Your task to perform on an android device: Play the last video I watched on Youtube Image 0: 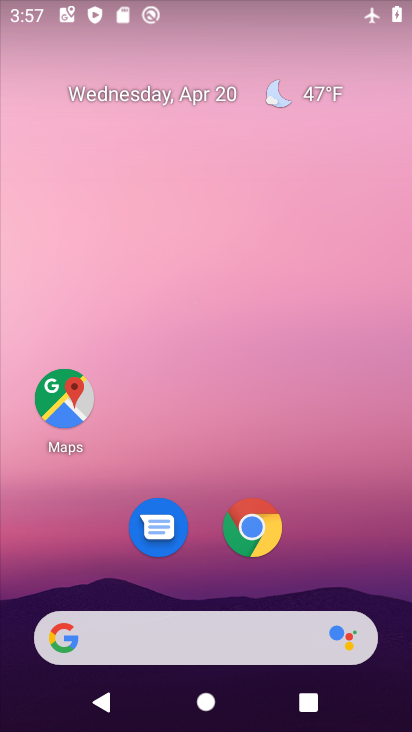
Step 0: drag from (305, 561) to (284, 58)
Your task to perform on an android device: Play the last video I watched on Youtube Image 1: 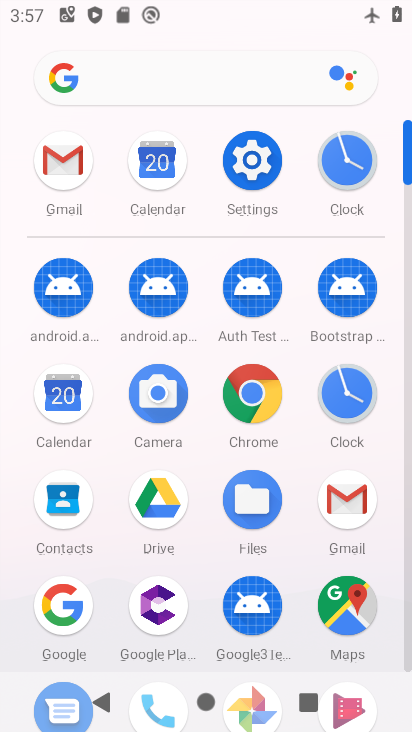
Step 1: drag from (331, 652) to (319, 126)
Your task to perform on an android device: Play the last video I watched on Youtube Image 2: 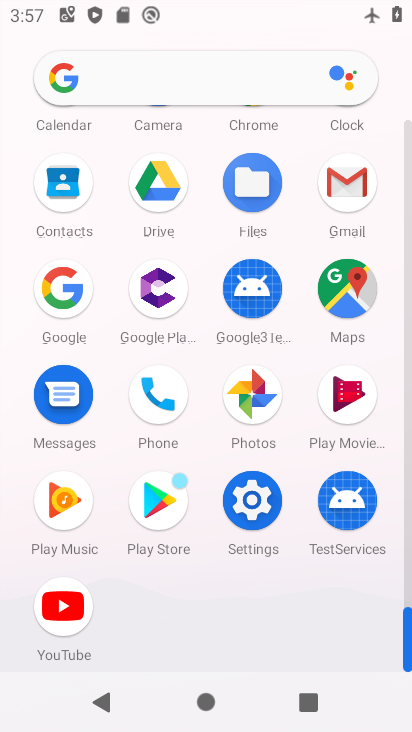
Step 2: click (68, 609)
Your task to perform on an android device: Play the last video I watched on Youtube Image 3: 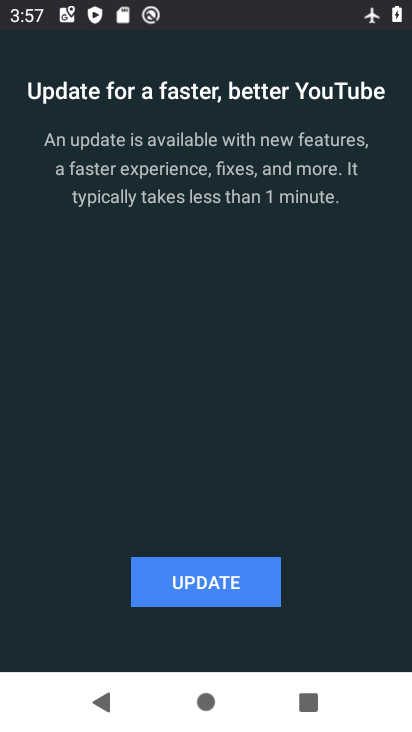
Step 3: click (203, 587)
Your task to perform on an android device: Play the last video I watched on Youtube Image 4: 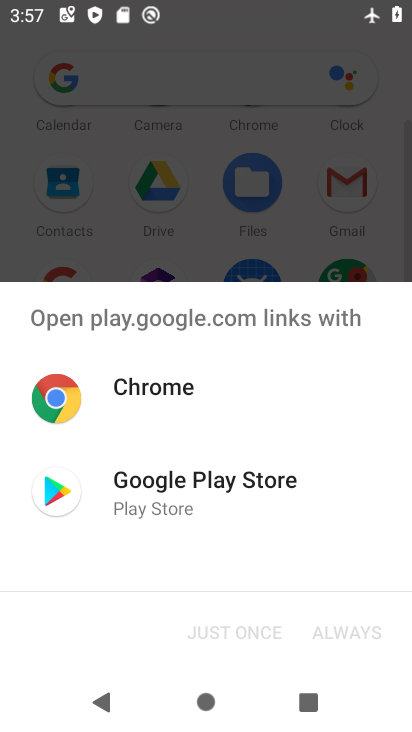
Step 4: click (172, 485)
Your task to perform on an android device: Play the last video I watched on Youtube Image 5: 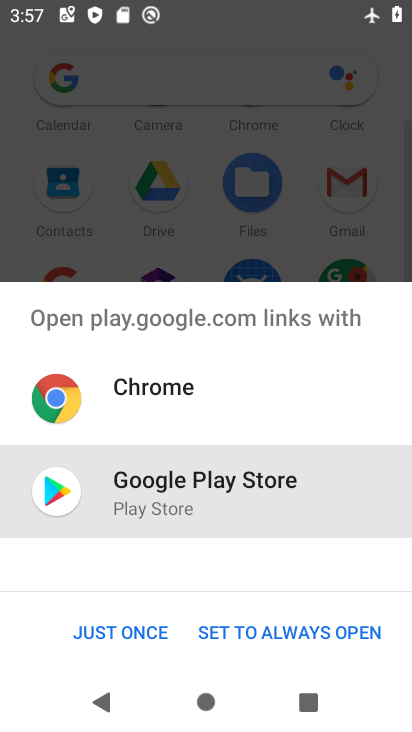
Step 5: click (105, 625)
Your task to perform on an android device: Play the last video I watched on Youtube Image 6: 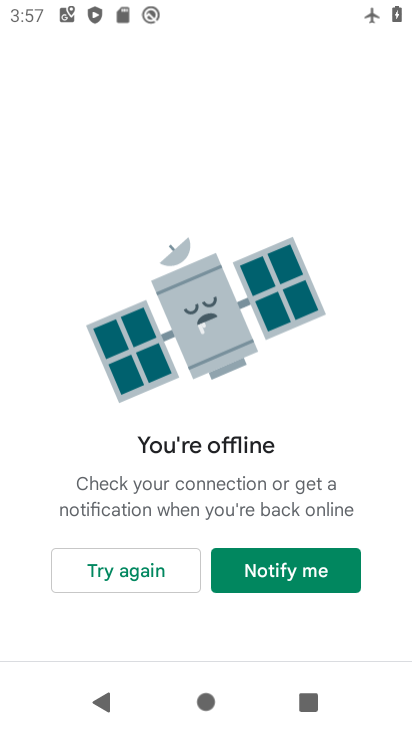
Step 6: click (152, 567)
Your task to perform on an android device: Play the last video I watched on Youtube Image 7: 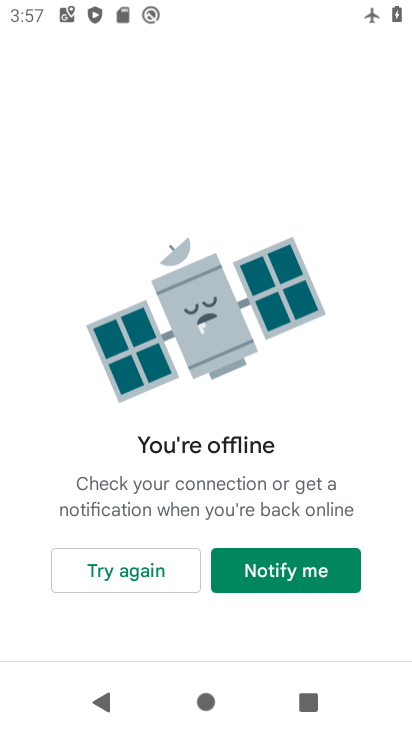
Step 7: task complete